Your task to perform on an android device: turn on showing notifications on the lock screen Image 0: 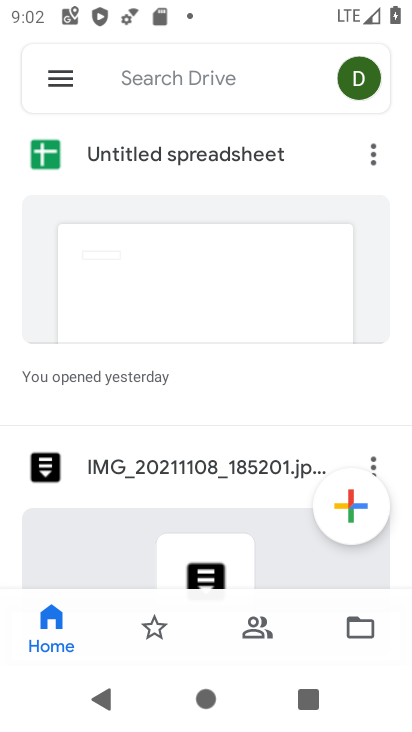
Step 0: press home button
Your task to perform on an android device: turn on showing notifications on the lock screen Image 1: 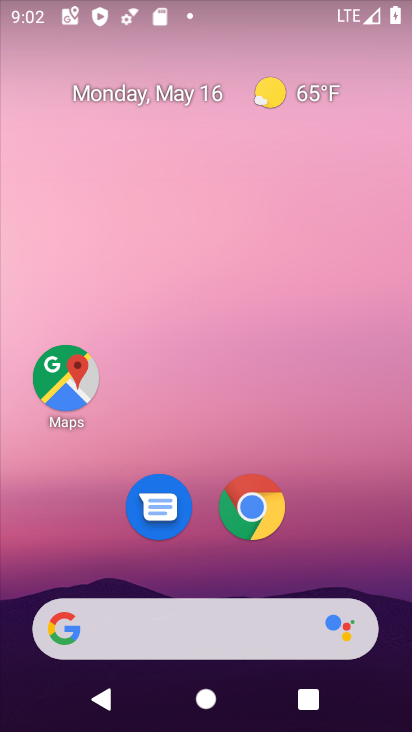
Step 1: drag from (226, 560) to (138, 72)
Your task to perform on an android device: turn on showing notifications on the lock screen Image 2: 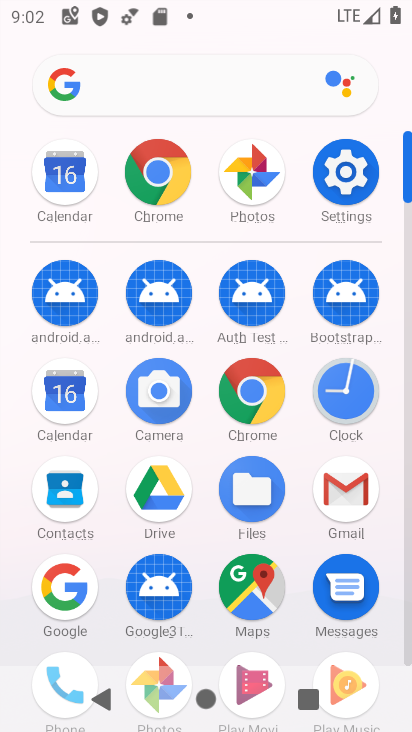
Step 2: click (332, 177)
Your task to perform on an android device: turn on showing notifications on the lock screen Image 3: 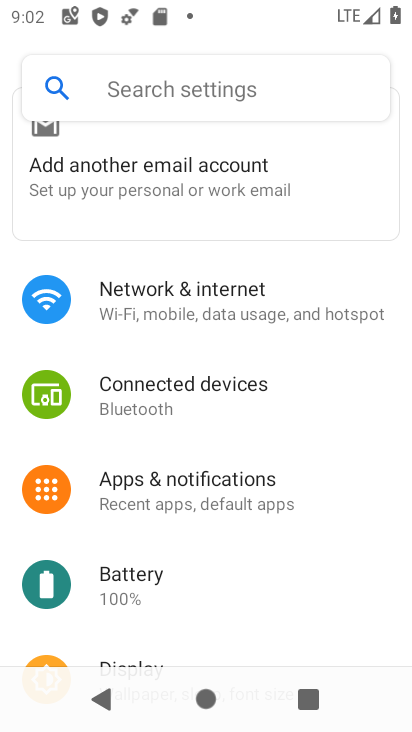
Step 3: drag from (193, 557) to (170, 439)
Your task to perform on an android device: turn on showing notifications on the lock screen Image 4: 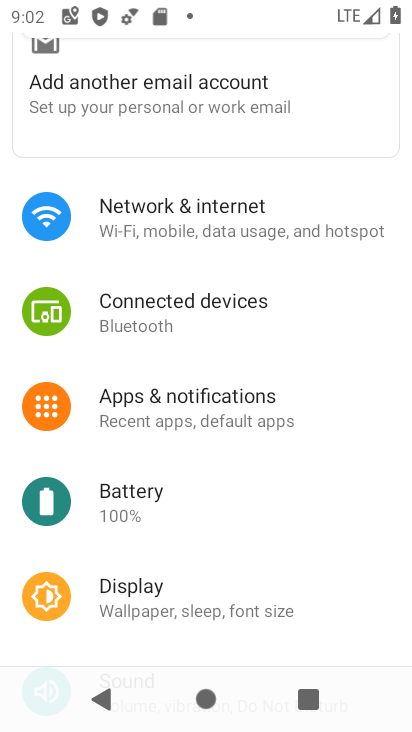
Step 4: click (170, 418)
Your task to perform on an android device: turn on showing notifications on the lock screen Image 5: 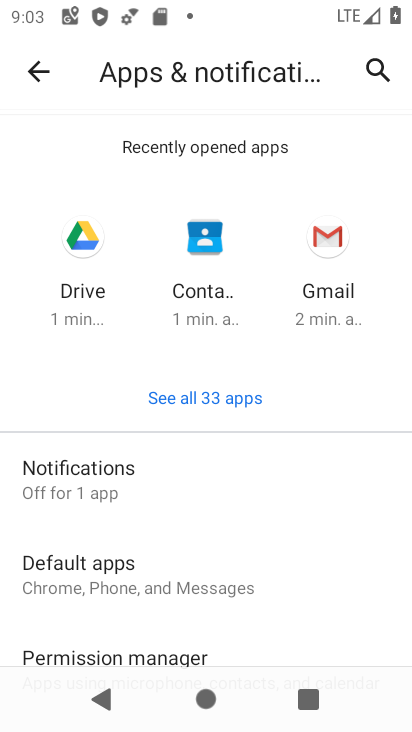
Step 5: drag from (126, 577) to (106, 183)
Your task to perform on an android device: turn on showing notifications on the lock screen Image 6: 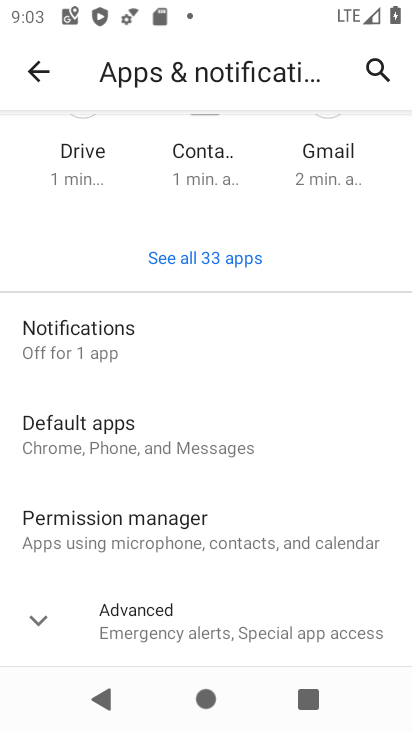
Step 6: click (114, 330)
Your task to perform on an android device: turn on showing notifications on the lock screen Image 7: 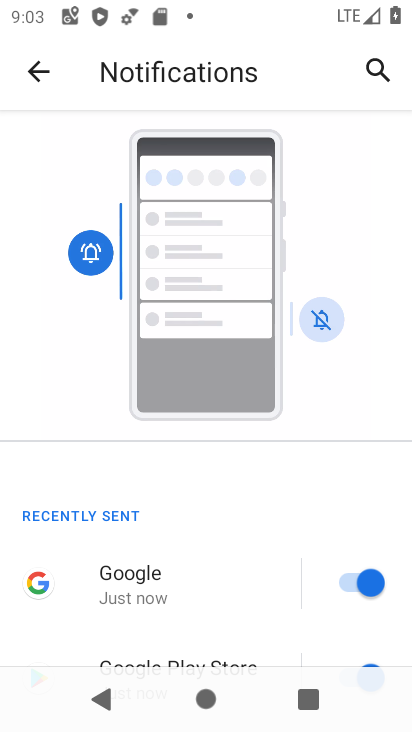
Step 7: drag from (193, 566) to (126, 109)
Your task to perform on an android device: turn on showing notifications on the lock screen Image 8: 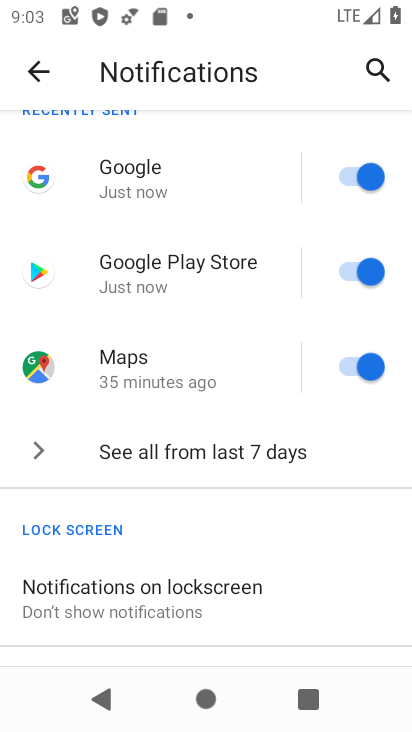
Step 8: click (172, 578)
Your task to perform on an android device: turn on showing notifications on the lock screen Image 9: 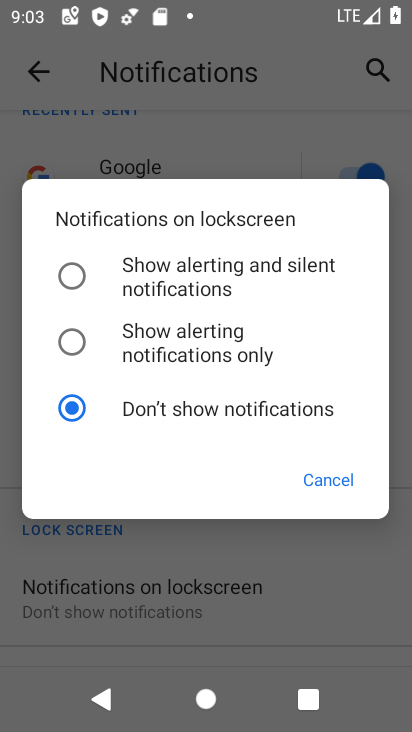
Step 9: click (189, 270)
Your task to perform on an android device: turn on showing notifications on the lock screen Image 10: 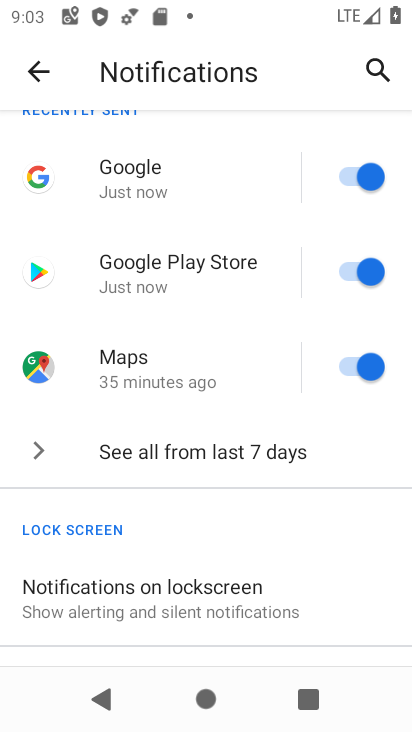
Step 10: task complete